Your task to perform on an android device: turn off notifications in google photos Image 0: 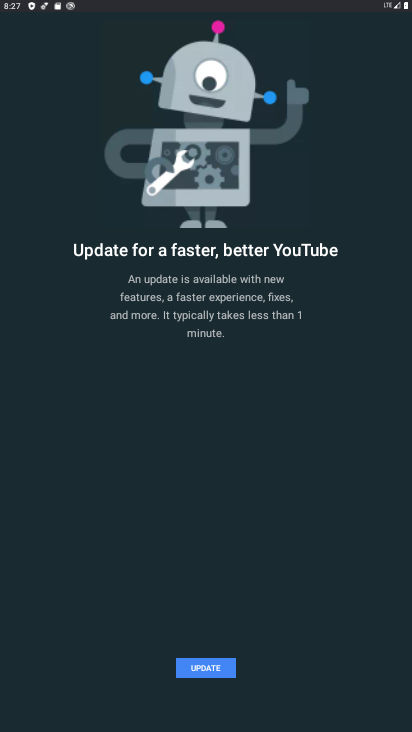
Step 0: press home button
Your task to perform on an android device: turn off notifications in google photos Image 1: 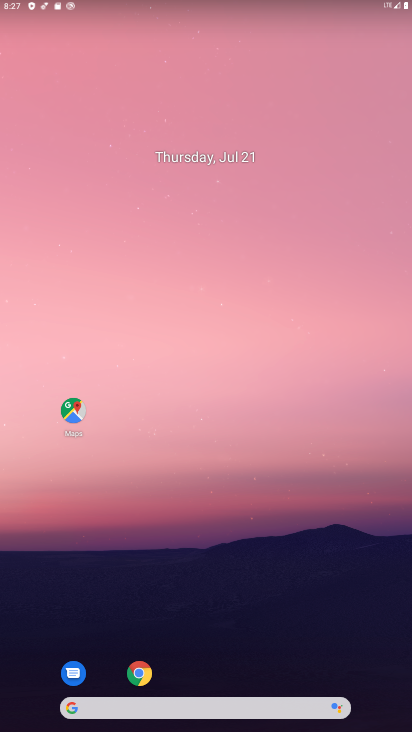
Step 1: drag from (204, 654) to (197, 233)
Your task to perform on an android device: turn off notifications in google photos Image 2: 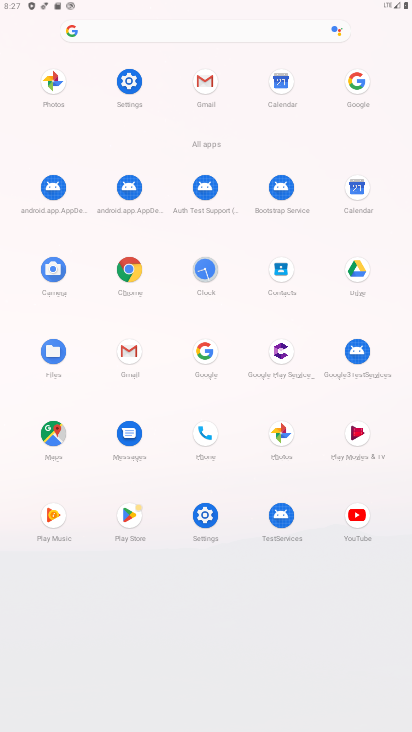
Step 2: click (272, 434)
Your task to perform on an android device: turn off notifications in google photos Image 3: 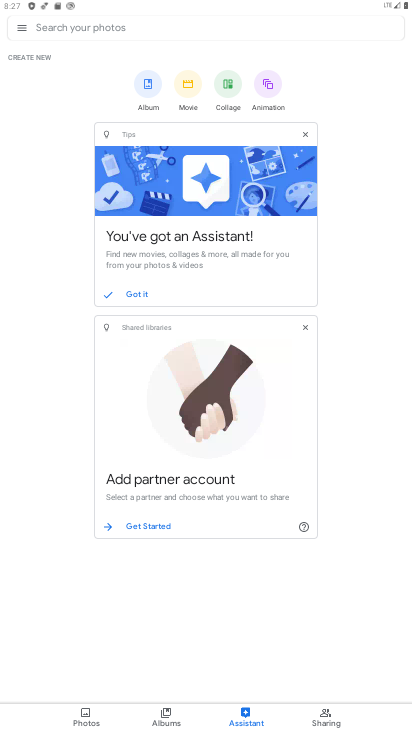
Step 3: click (20, 30)
Your task to perform on an android device: turn off notifications in google photos Image 4: 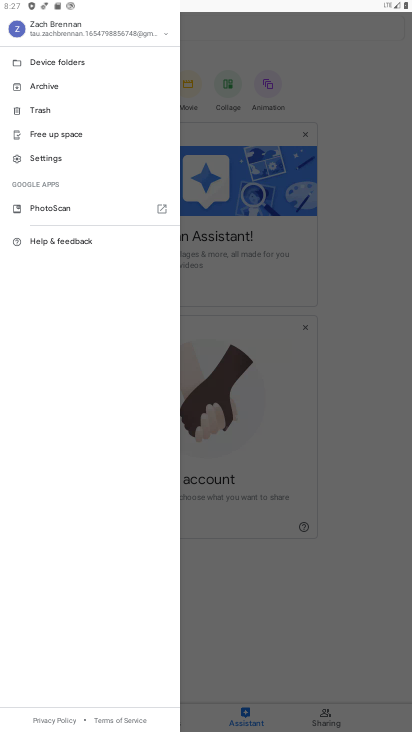
Step 4: click (63, 167)
Your task to perform on an android device: turn off notifications in google photos Image 5: 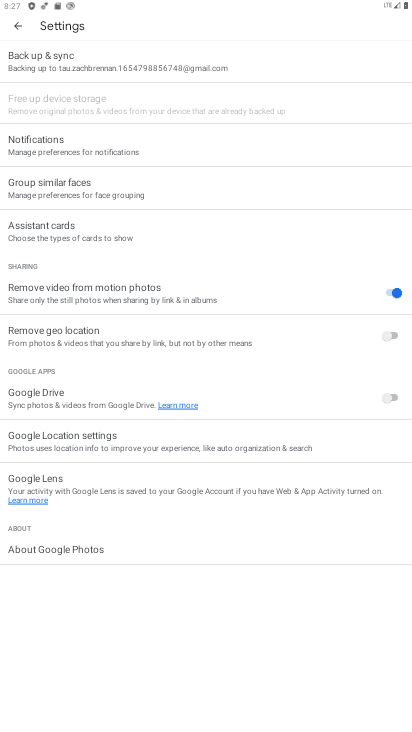
Step 5: click (129, 151)
Your task to perform on an android device: turn off notifications in google photos Image 6: 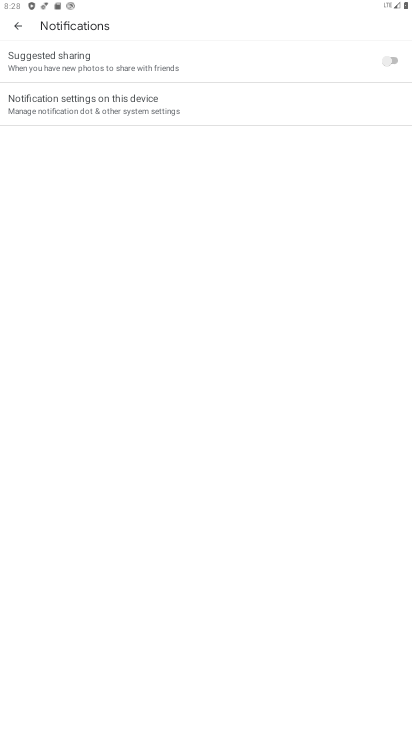
Step 6: click (108, 111)
Your task to perform on an android device: turn off notifications in google photos Image 7: 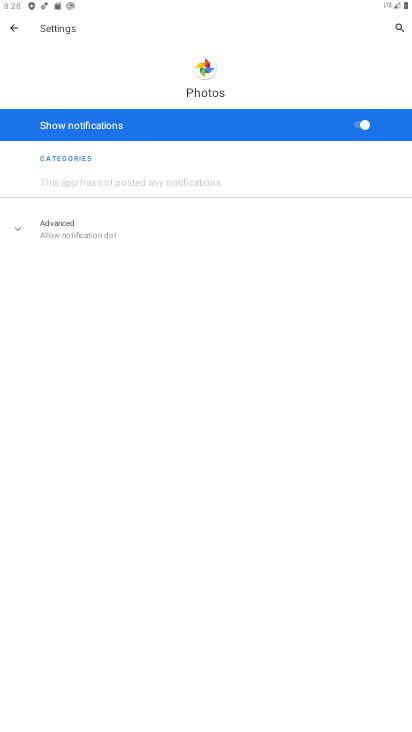
Step 7: click (363, 119)
Your task to perform on an android device: turn off notifications in google photos Image 8: 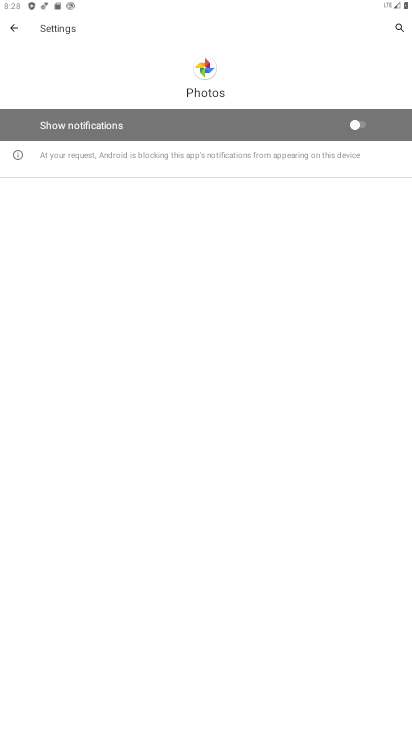
Step 8: task complete